Your task to perform on an android device: Go to eBay Image 0: 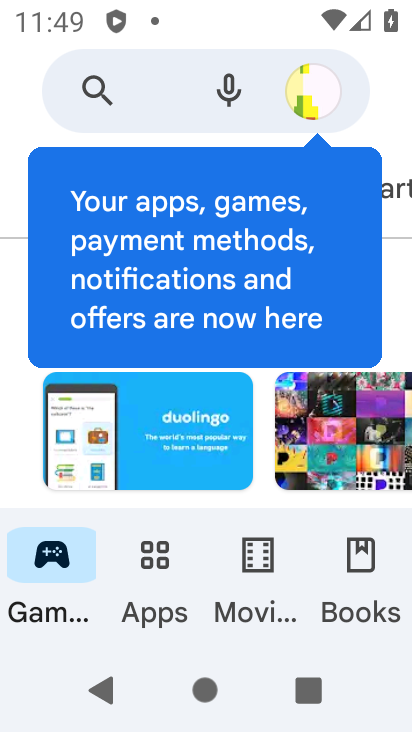
Step 0: press home button
Your task to perform on an android device: Go to eBay Image 1: 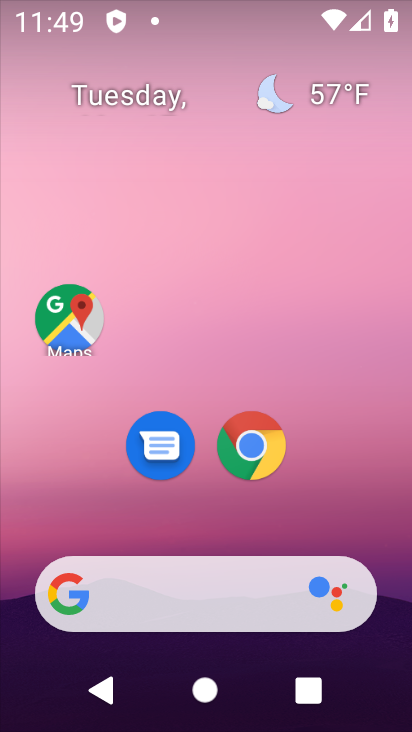
Step 1: drag from (368, 510) to (359, 189)
Your task to perform on an android device: Go to eBay Image 2: 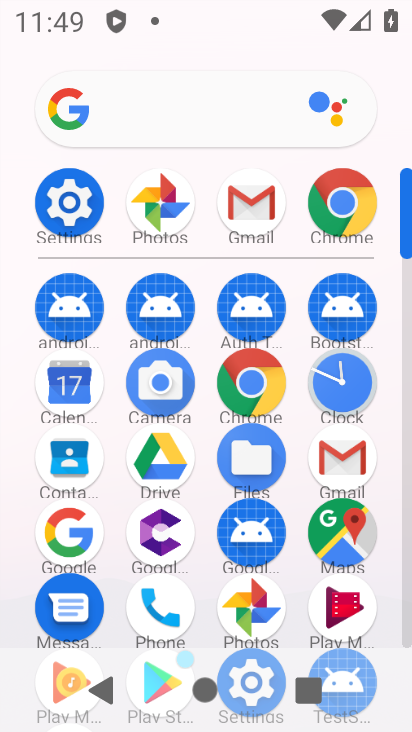
Step 2: click (241, 357)
Your task to perform on an android device: Go to eBay Image 3: 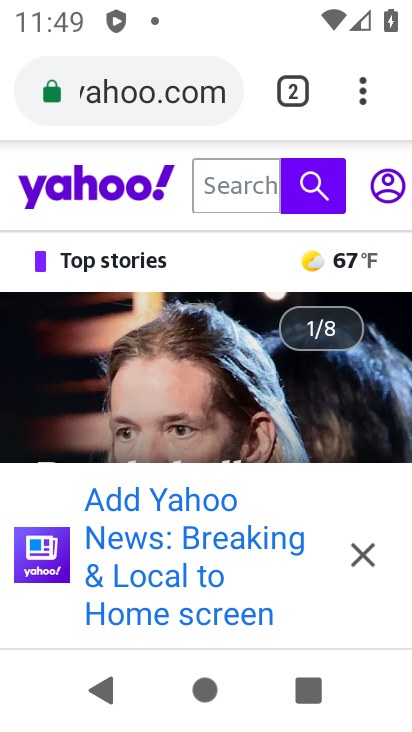
Step 3: press back button
Your task to perform on an android device: Go to eBay Image 4: 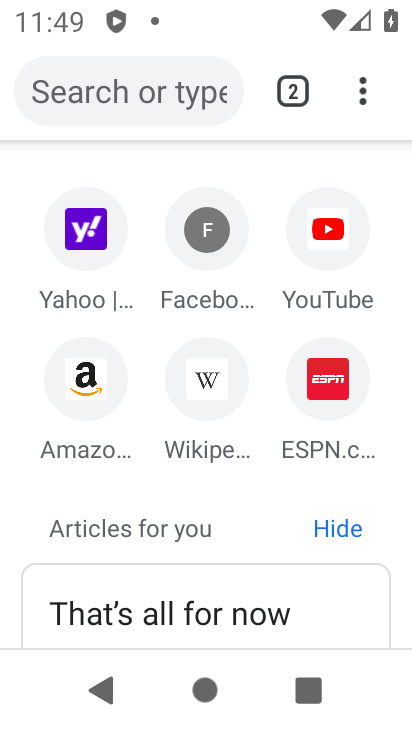
Step 4: click (125, 110)
Your task to perform on an android device: Go to eBay Image 5: 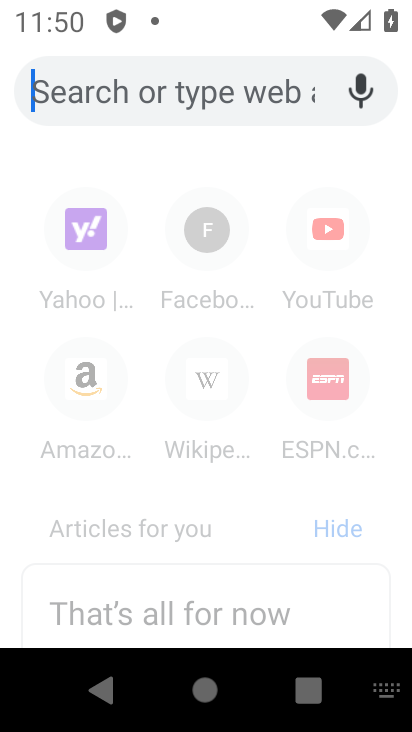
Step 5: type "ebay"
Your task to perform on an android device: Go to eBay Image 6: 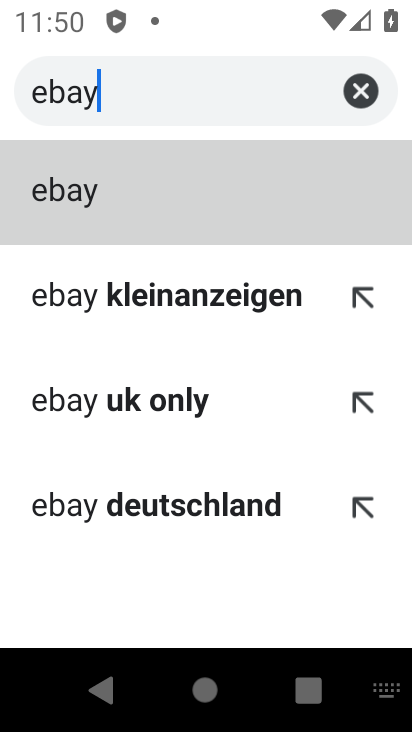
Step 6: click (200, 221)
Your task to perform on an android device: Go to eBay Image 7: 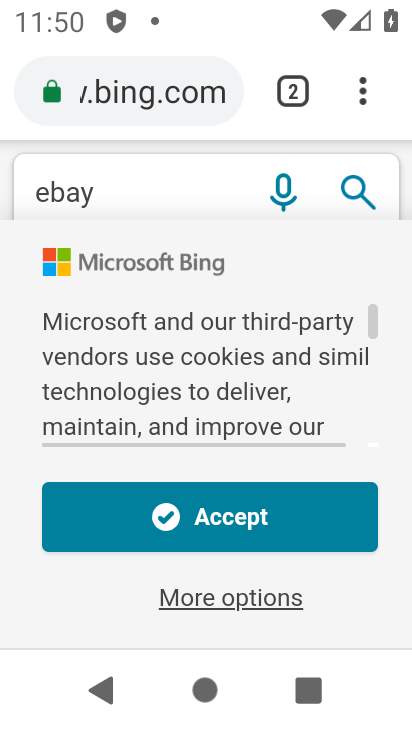
Step 7: task complete